Your task to perform on an android device: Open Youtube and go to the subscriptions tab Image 0: 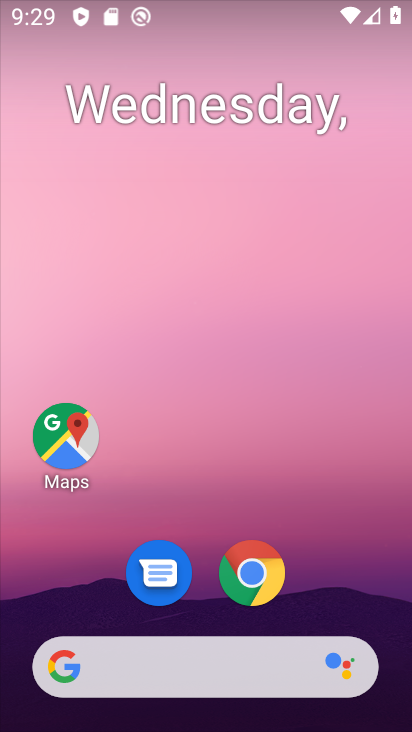
Step 0: drag from (350, 570) to (317, 323)
Your task to perform on an android device: Open Youtube and go to the subscriptions tab Image 1: 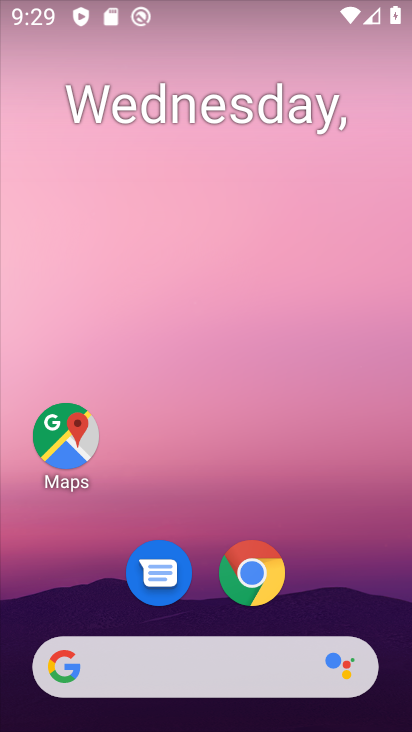
Step 1: drag from (319, 583) to (295, 258)
Your task to perform on an android device: Open Youtube and go to the subscriptions tab Image 2: 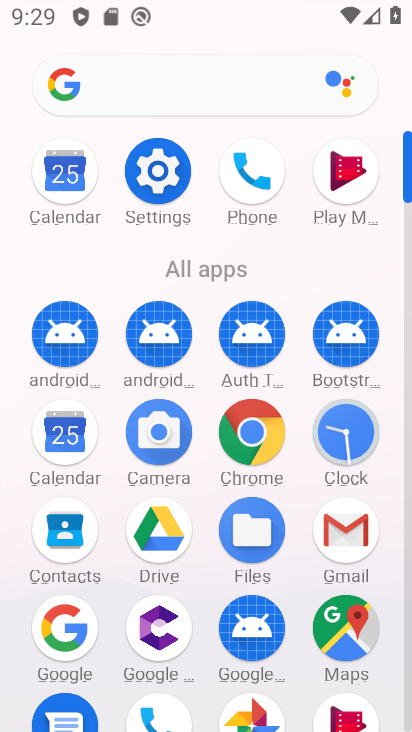
Step 2: drag from (283, 634) to (304, 231)
Your task to perform on an android device: Open Youtube and go to the subscriptions tab Image 3: 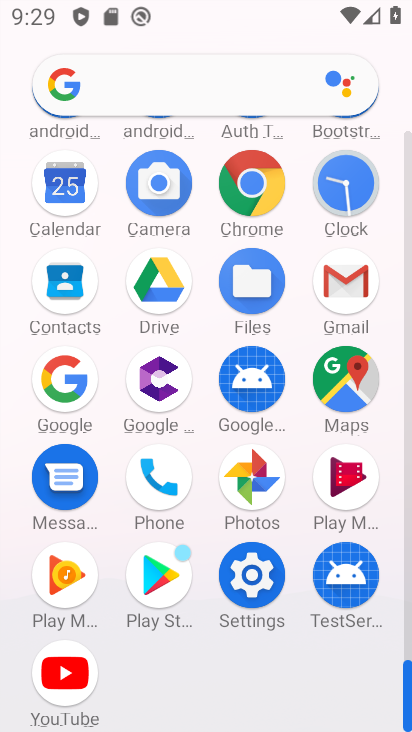
Step 3: click (62, 682)
Your task to perform on an android device: Open Youtube and go to the subscriptions tab Image 4: 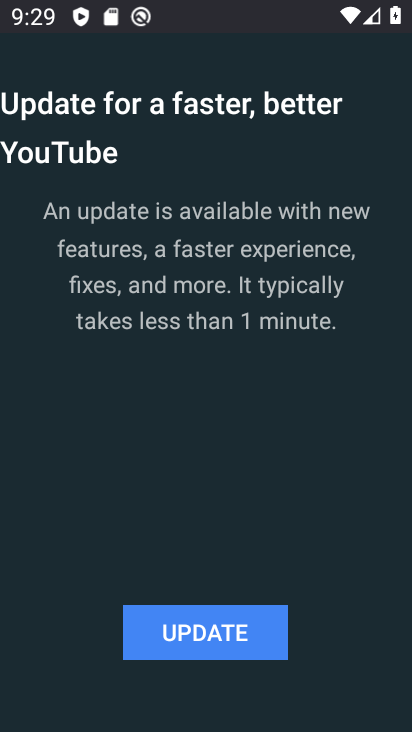
Step 4: task complete